Your task to perform on an android device: What is the news today? Image 0: 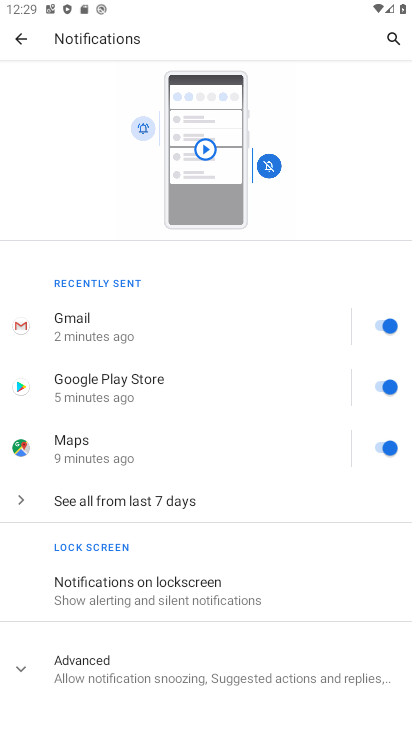
Step 0: press home button
Your task to perform on an android device: What is the news today? Image 1: 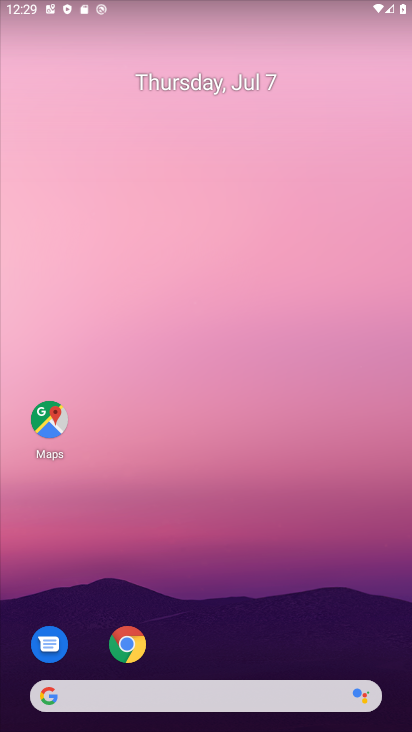
Step 1: drag from (251, 582) to (319, 83)
Your task to perform on an android device: What is the news today? Image 2: 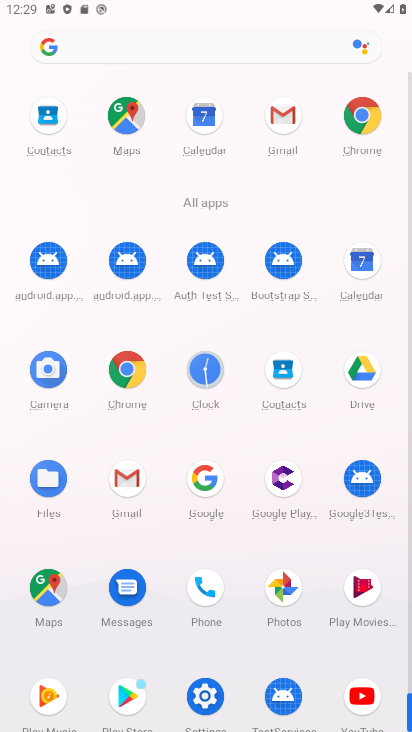
Step 2: click (121, 360)
Your task to perform on an android device: What is the news today? Image 3: 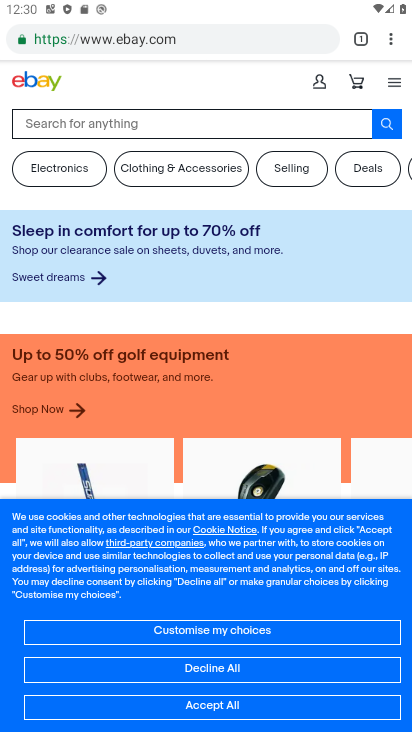
Step 3: click (82, 31)
Your task to perform on an android device: What is the news today? Image 4: 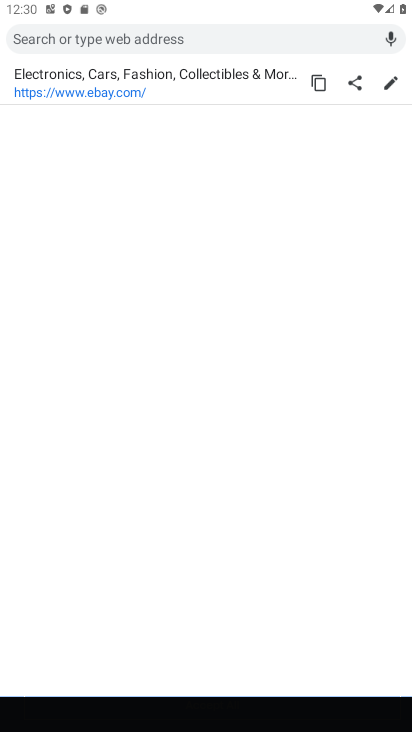
Step 4: click (82, 31)
Your task to perform on an android device: What is the news today? Image 5: 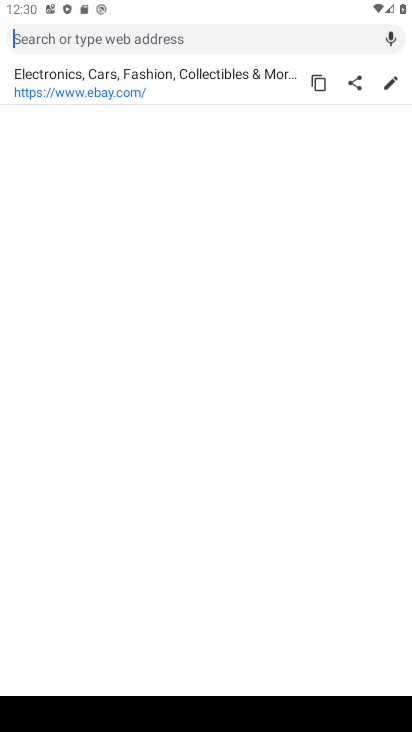
Step 5: type "What is the news today?"
Your task to perform on an android device: What is the news today? Image 6: 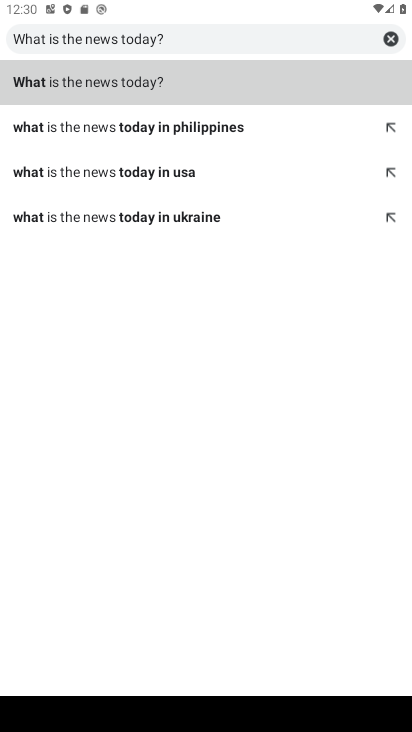
Step 6: click (119, 78)
Your task to perform on an android device: What is the news today? Image 7: 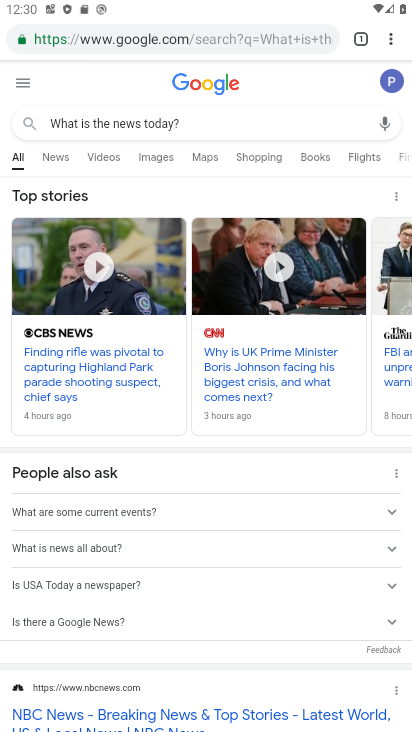
Step 7: click (50, 162)
Your task to perform on an android device: What is the news today? Image 8: 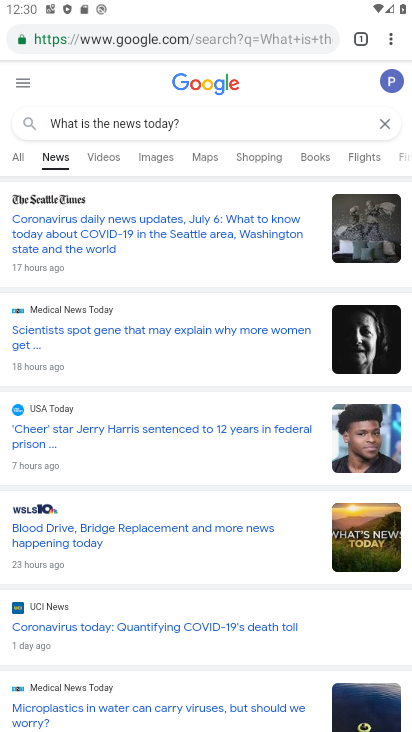
Step 8: task complete